Your task to perform on an android device: Clear the cart on bestbuy. Add bose soundlink to the cart on bestbuy, then select checkout. Image 0: 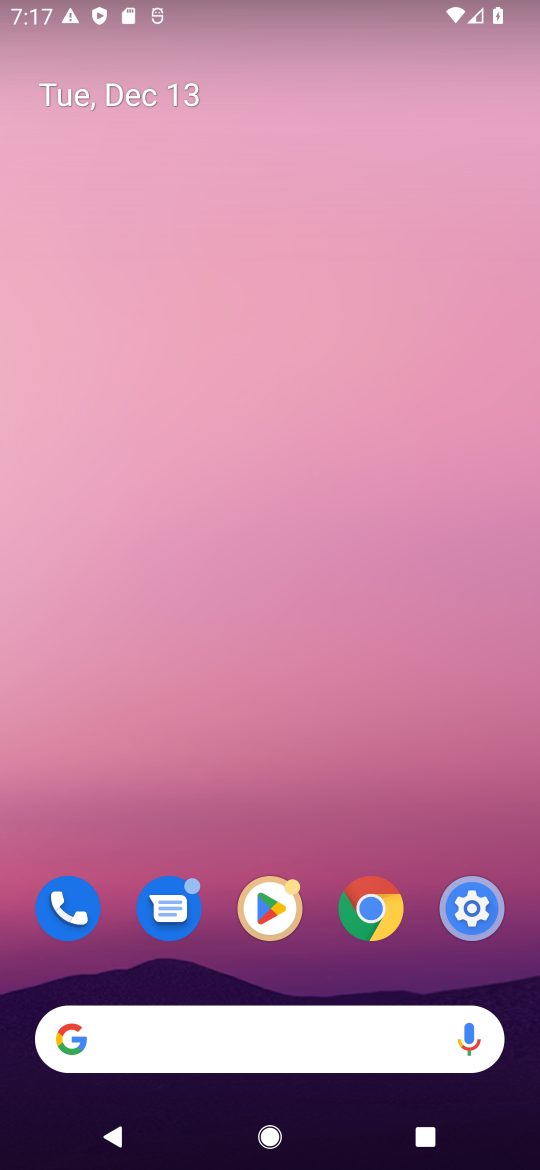
Step 0: press home button
Your task to perform on an android device: Clear the cart on bestbuy. Add bose soundlink to the cart on bestbuy, then select checkout. Image 1: 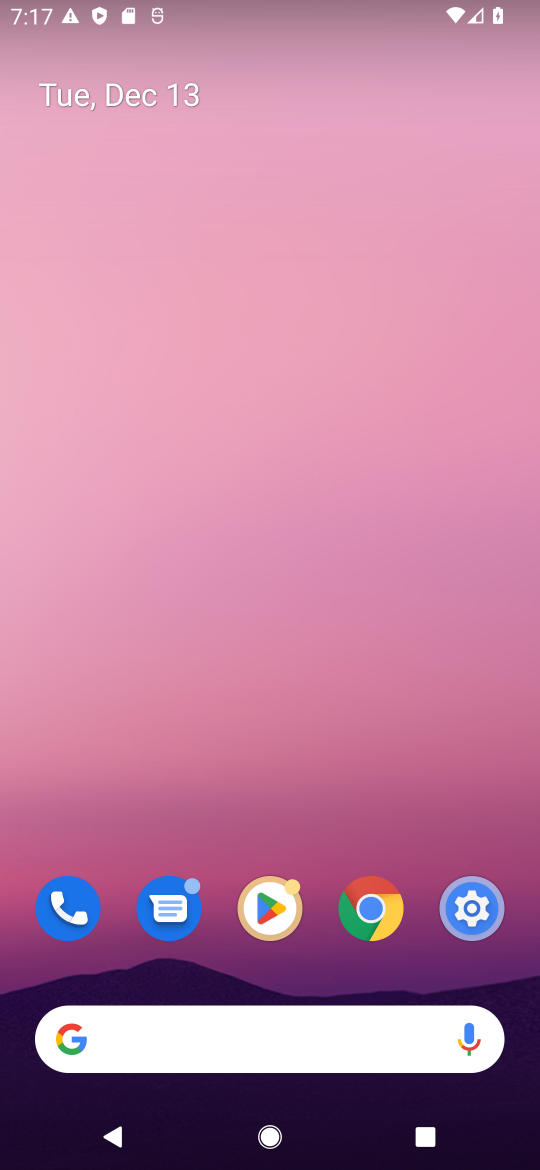
Step 1: click (144, 1029)
Your task to perform on an android device: Clear the cart on bestbuy. Add bose soundlink to the cart on bestbuy, then select checkout. Image 2: 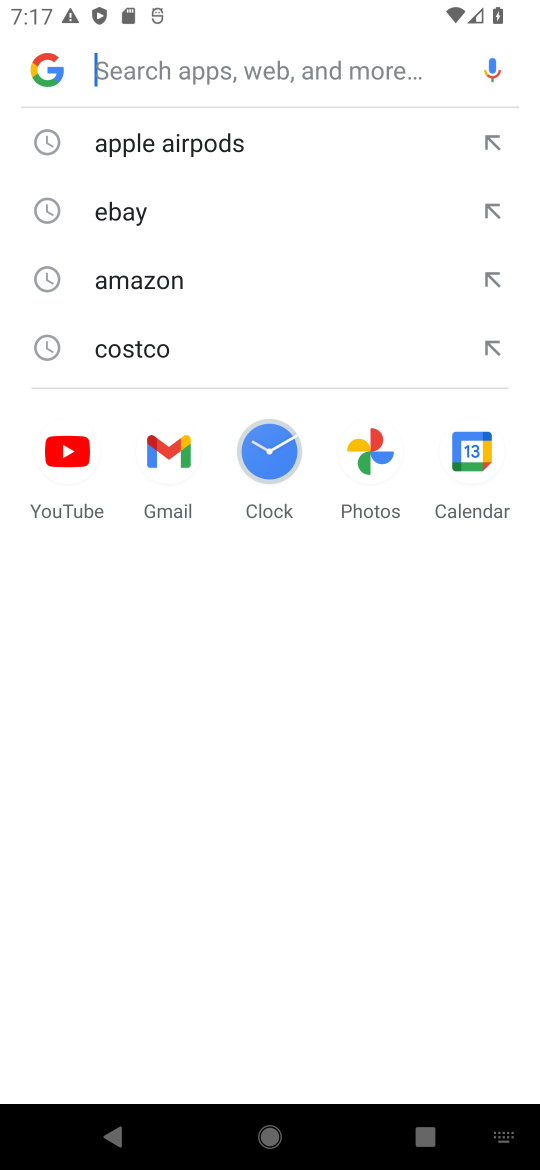
Step 2: type "bestbuy"
Your task to perform on an android device: Clear the cart on bestbuy. Add bose soundlink to the cart on bestbuy, then select checkout. Image 3: 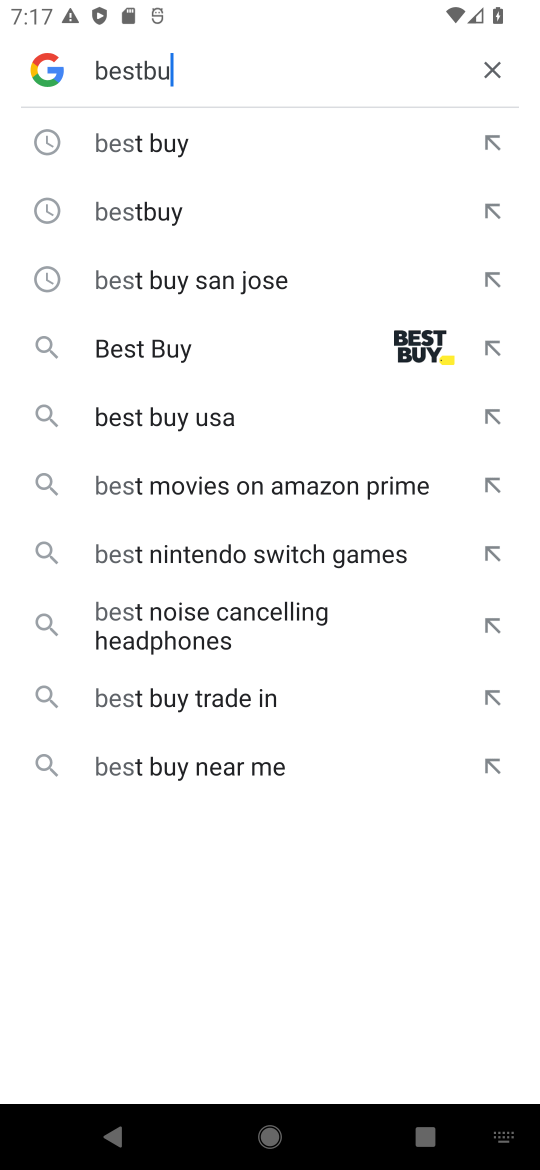
Step 3: press enter
Your task to perform on an android device: Clear the cart on bestbuy. Add bose soundlink to the cart on bestbuy, then select checkout. Image 4: 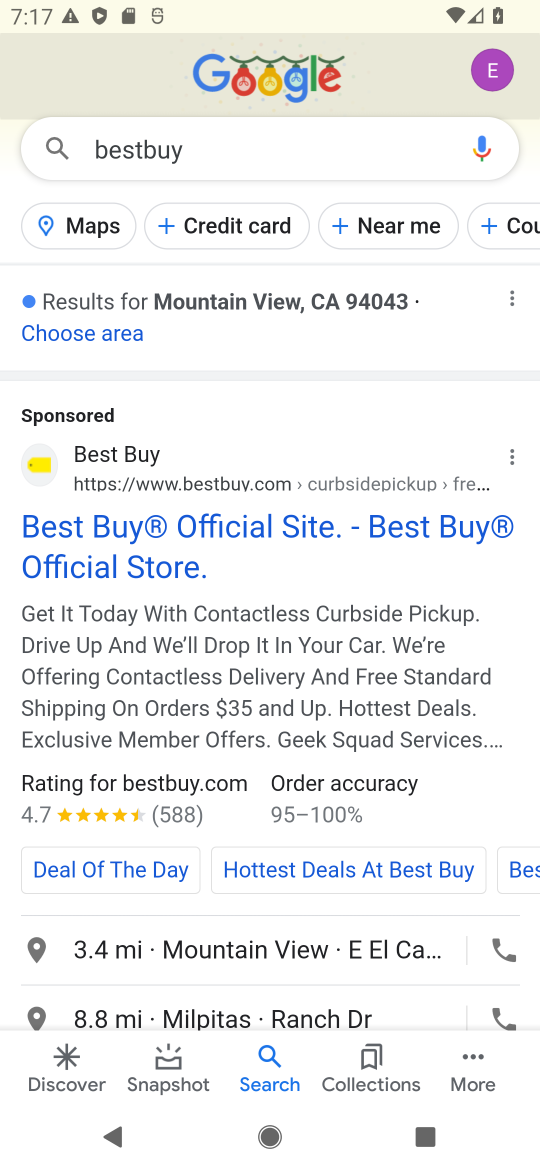
Step 4: click (164, 561)
Your task to perform on an android device: Clear the cart on bestbuy. Add bose soundlink to the cart on bestbuy, then select checkout. Image 5: 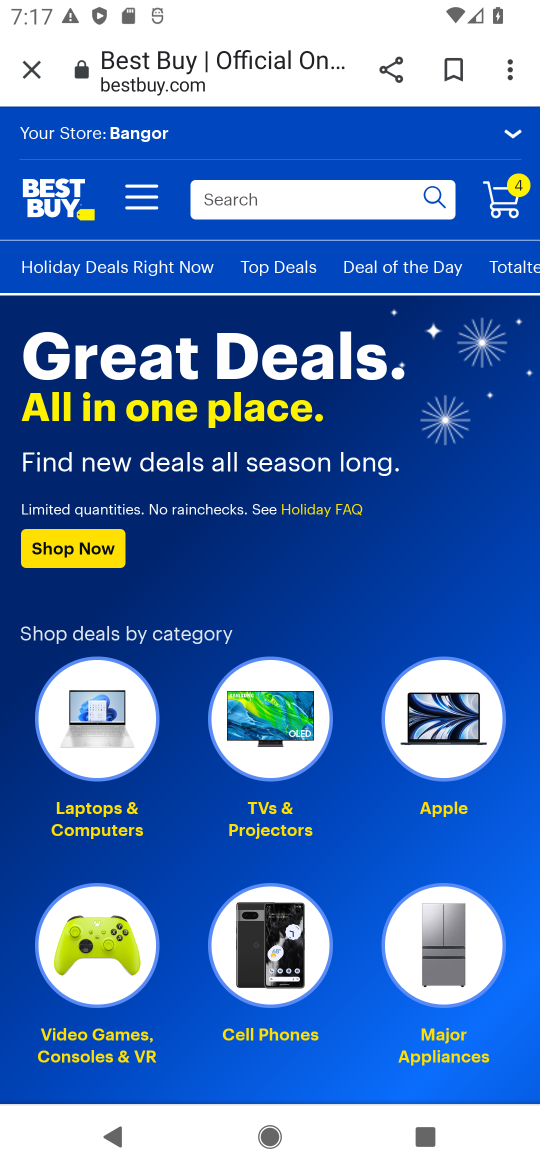
Step 5: click (518, 198)
Your task to perform on an android device: Clear the cart on bestbuy. Add bose soundlink to the cart on bestbuy, then select checkout. Image 6: 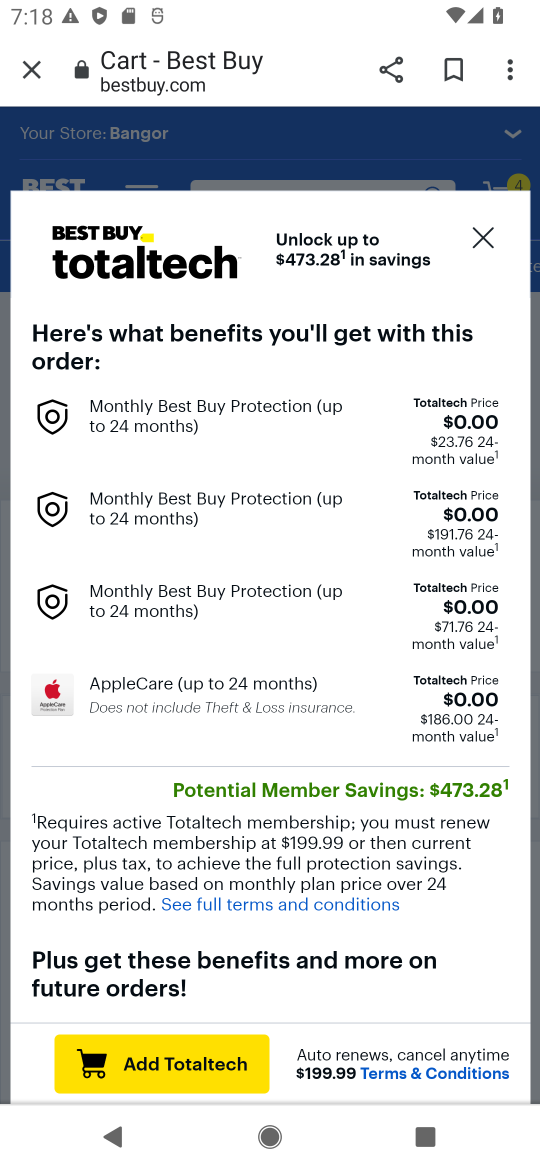
Step 6: click (483, 244)
Your task to perform on an android device: Clear the cart on bestbuy. Add bose soundlink to the cart on bestbuy, then select checkout. Image 7: 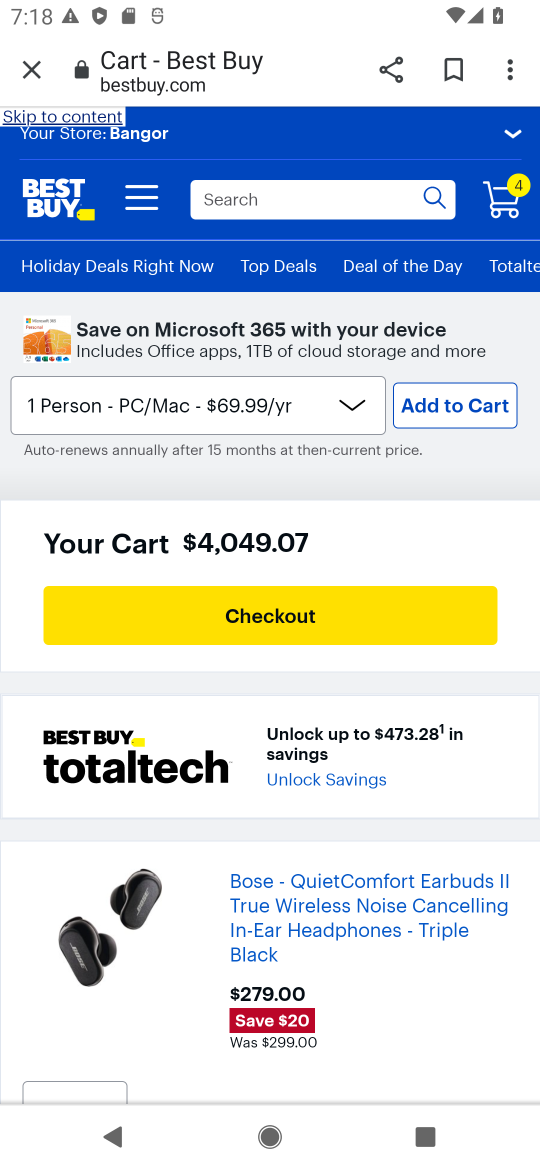
Step 7: drag from (336, 910) to (339, 503)
Your task to perform on an android device: Clear the cart on bestbuy. Add bose soundlink to the cart on bestbuy, then select checkout. Image 8: 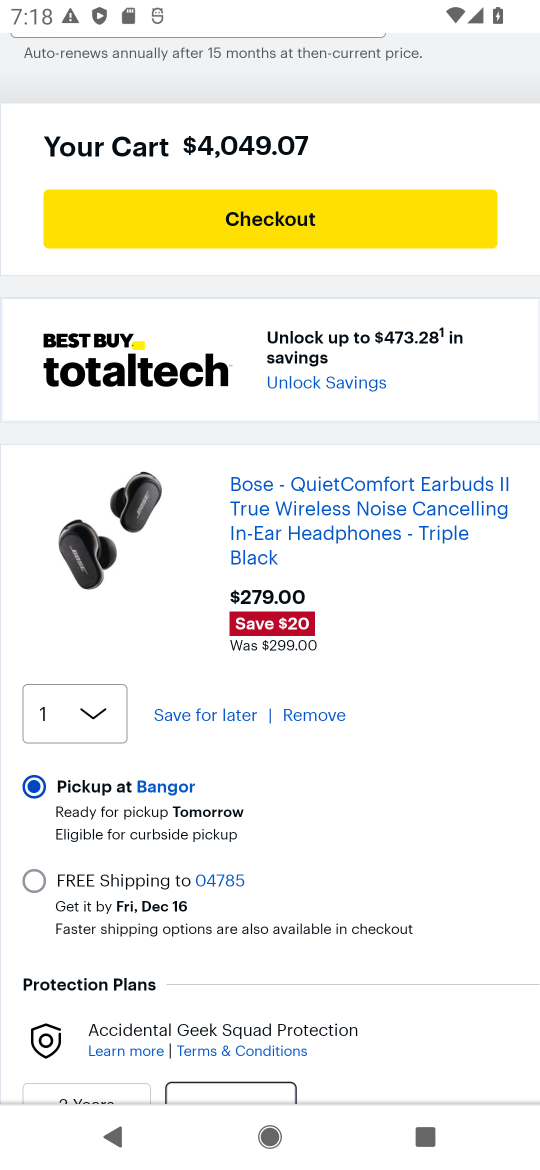
Step 8: click (300, 707)
Your task to perform on an android device: Clear the cart on bestbuy. Add bose soundlink to the cart on bestbuy, then select checkout. Image 9: 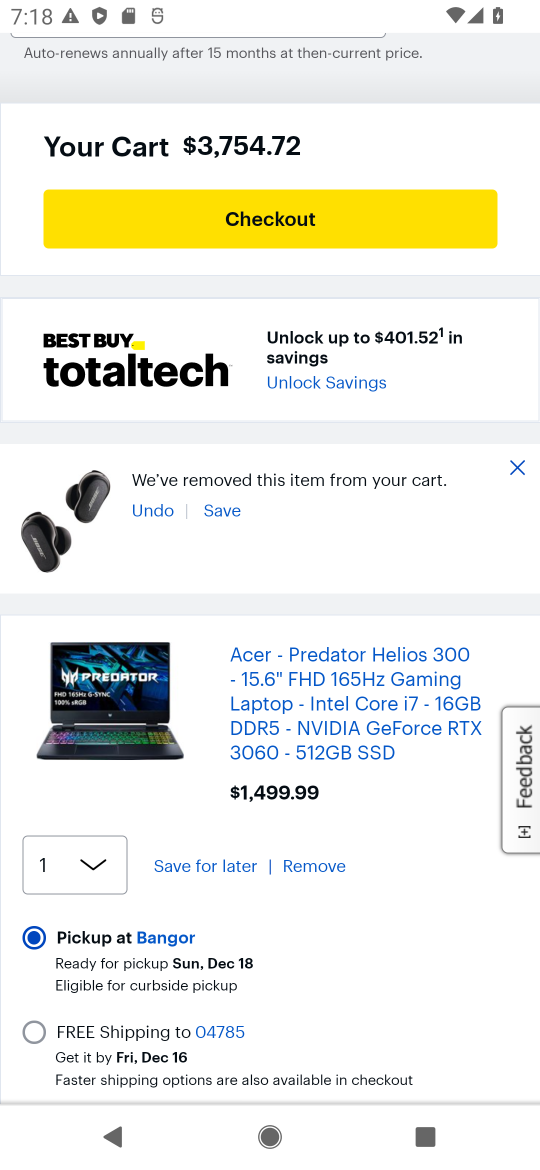
Step 9: click (326, 872)
Your task to perform on an android device: Clear the cart on bestbuy. Add bose soundlink to the cart on bestbuy, then select checkout. Image 10: 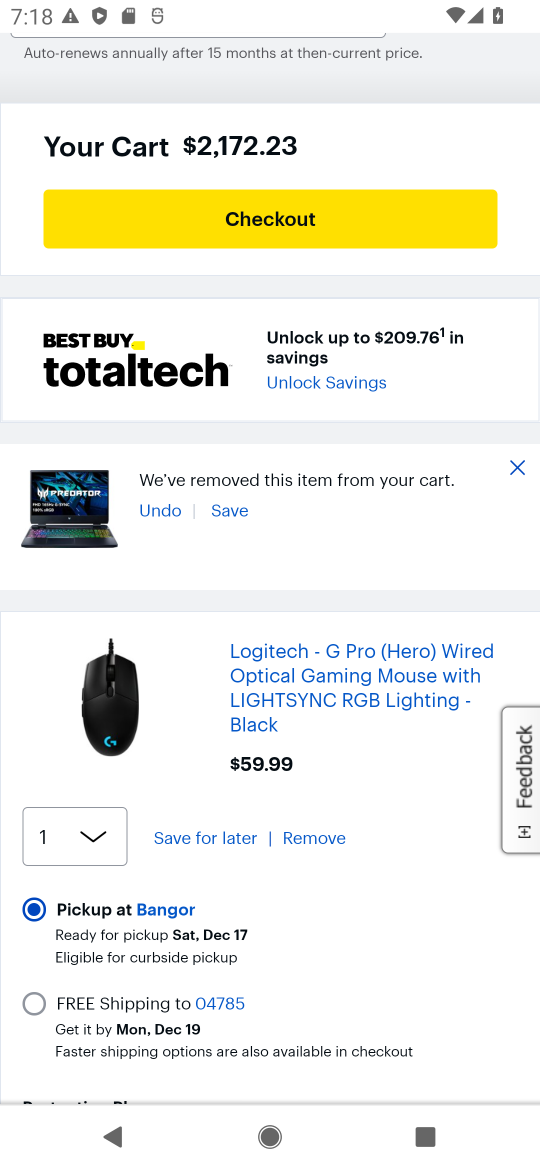
Step 10: click (313, 833)
Your task to perform on an android device: Clear the cart on bestbuy. Add bose soundlink to the cart on bestbuy, then select checkout. Image 11: 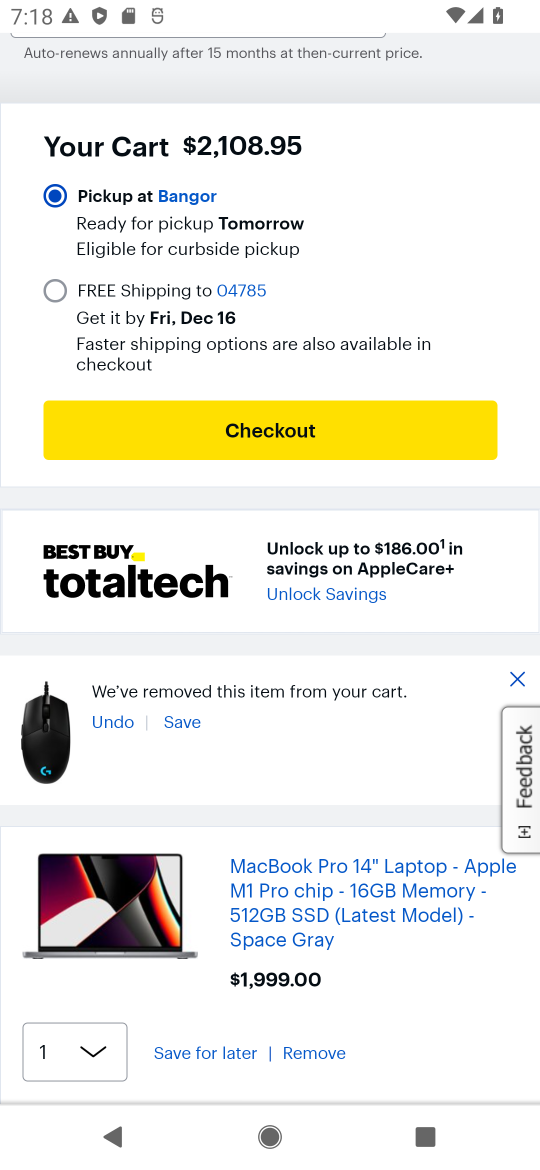
Step 11: click (308, 1044)
Your task to perform on an android device: Clear the cart on bestbuy. Add bose soundlink to the cart on bestbuy, then select checkout. Image 12: 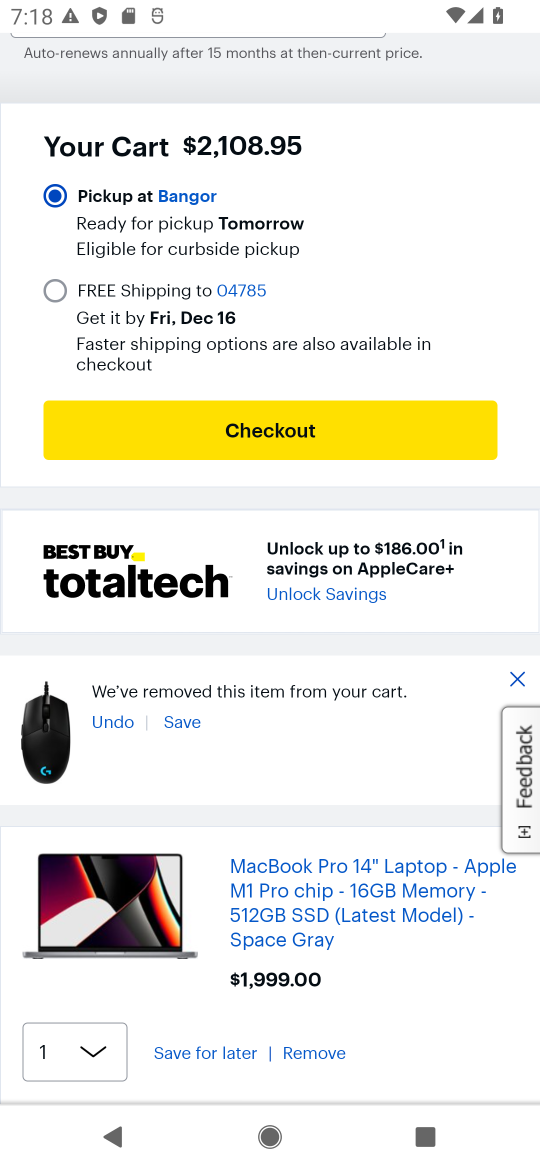
Step 12: drag from (361, 952) to (394, 513)
Your task to perform on an android device: Clear the cart on bestbuy. Add bose soundlink to the cart on bestbuy, then select checkout. Image 13: 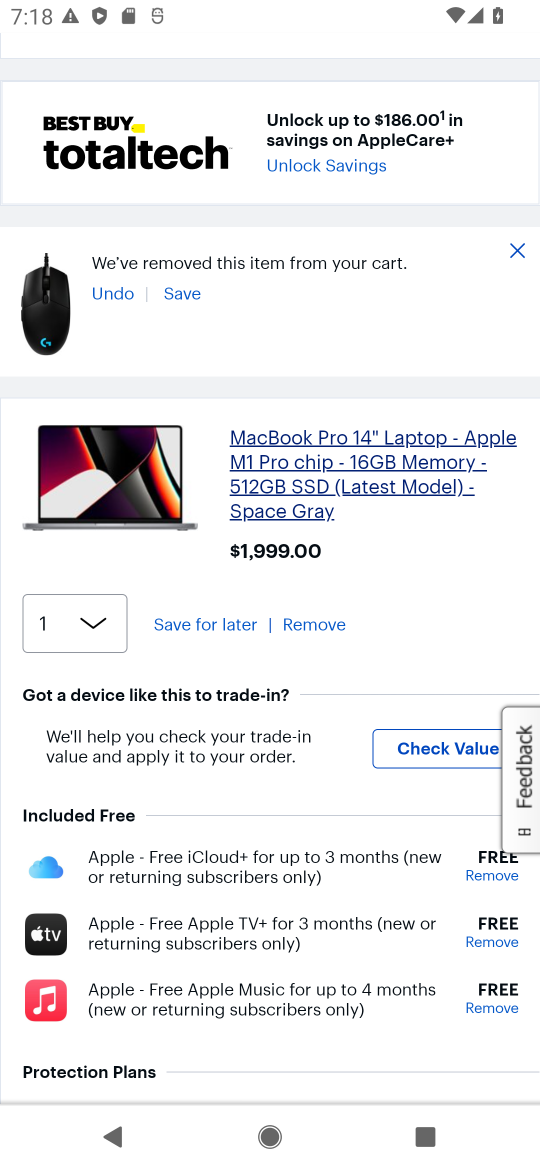
Step 13: click (323, 627)
Your task to perform on an android device: Clear the cart on bestbuy. Add bose soundlink to the cart on bestbuy, then select checkout. Image 14: 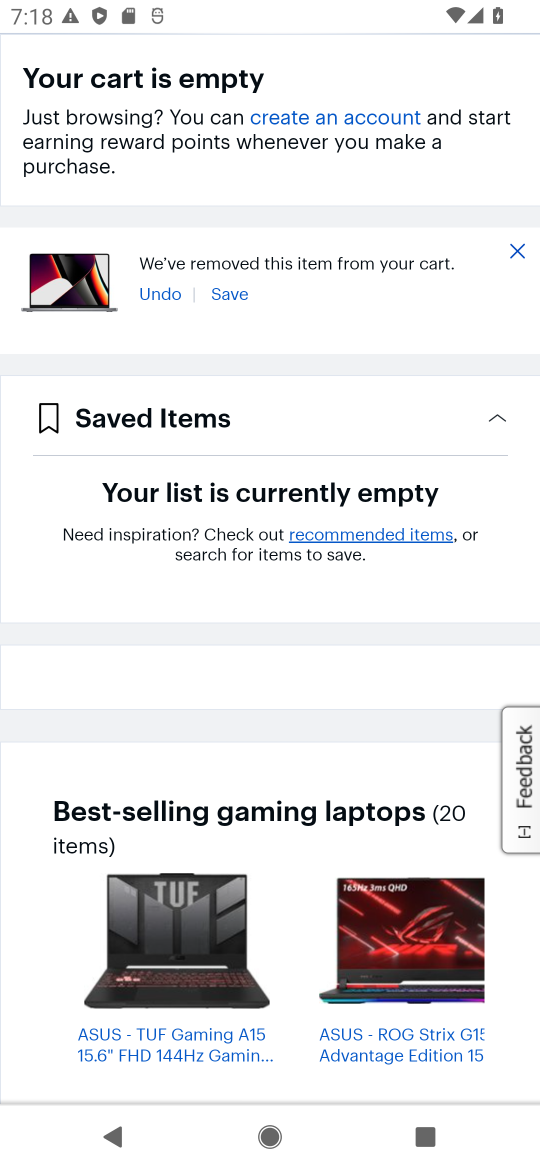
Step 14: press back button
Your task to perform on an android device: Clear the cart on bestbuy. Add bose soundlink to the cart on bestbuy, then select checkout. Image 15: 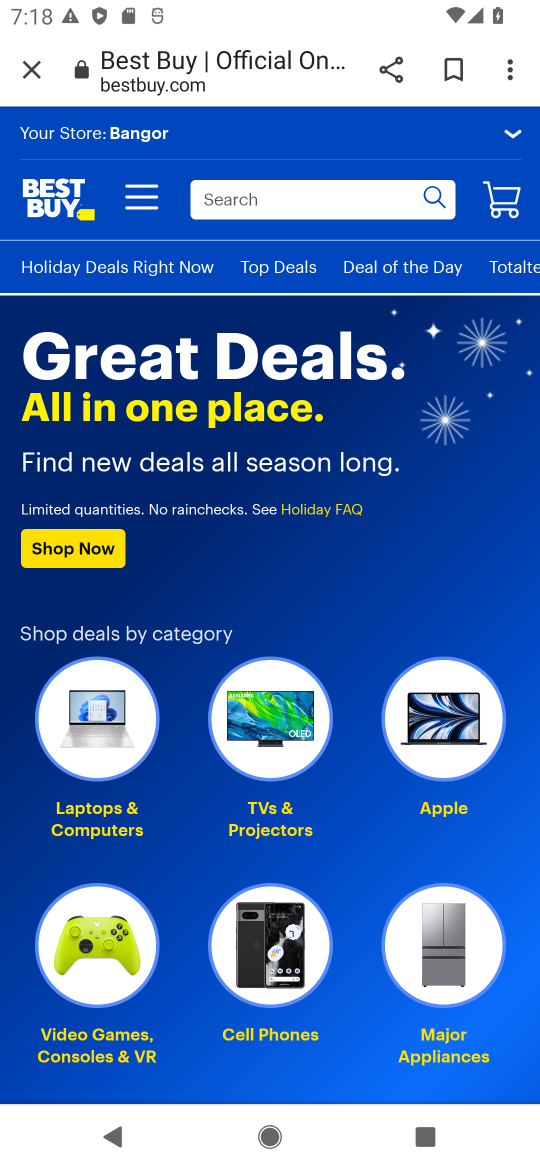
Step 15: click (235, 197)
Your task to perform on an android device: Clear the cart on bestbuy. Add bose soundlink to the cart on bestbuy, then select checkout. Image 16: 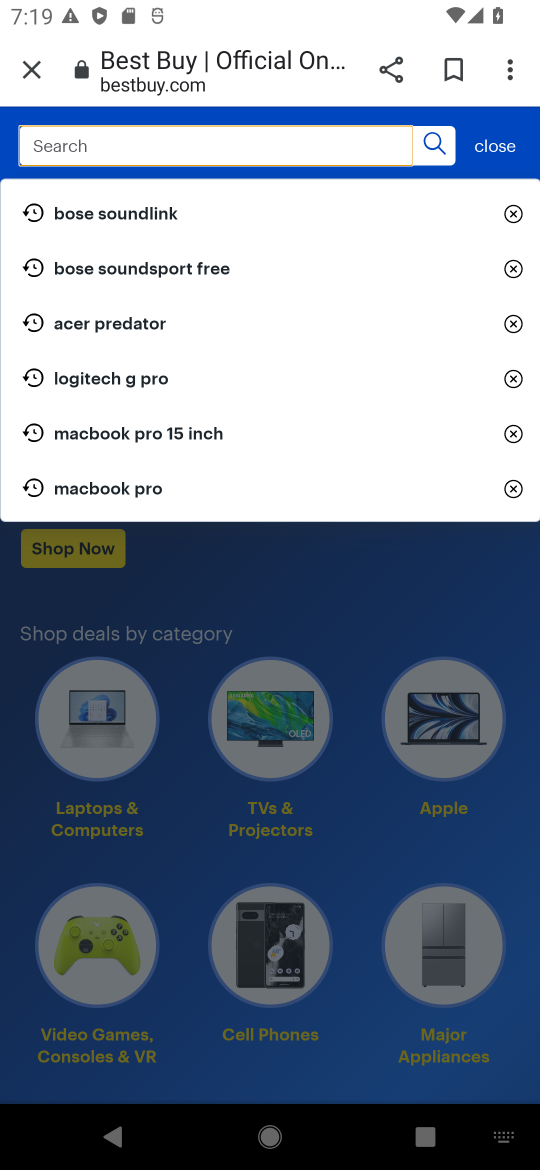
Step 16: type "bose soundlink"
Your task to perform on an android device: Clear the cart on bestbuy. Add bose soundlink to the cart on bestbuy, then select checkout. Image 17: 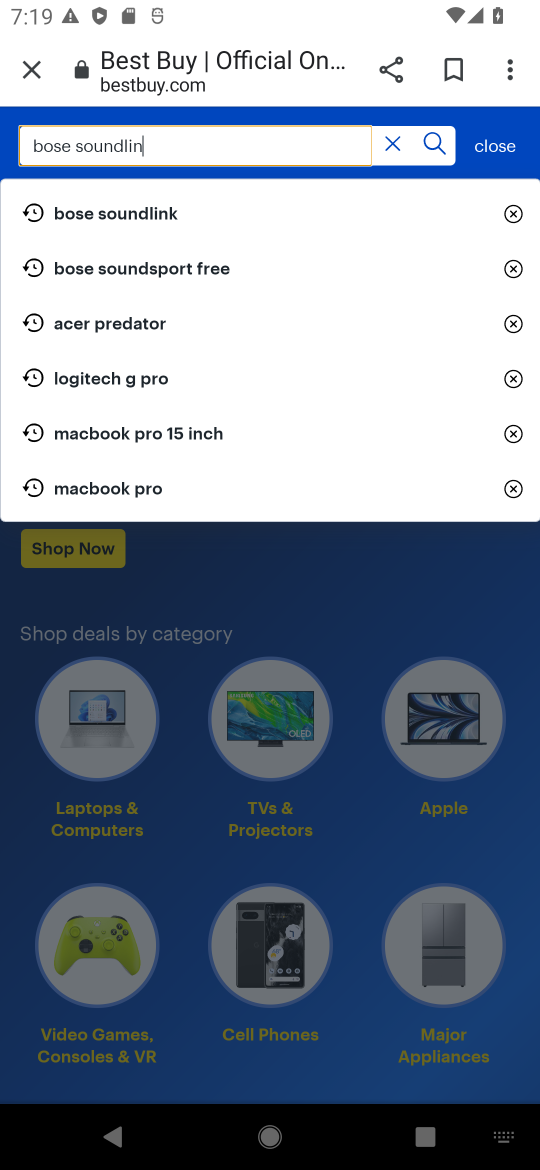
Step 17: press enter
Your task to perform on an android device: Clear the cart on bestbuy. Add bose soundlink to the cart on bestbuy, then select checkout. Image 18: 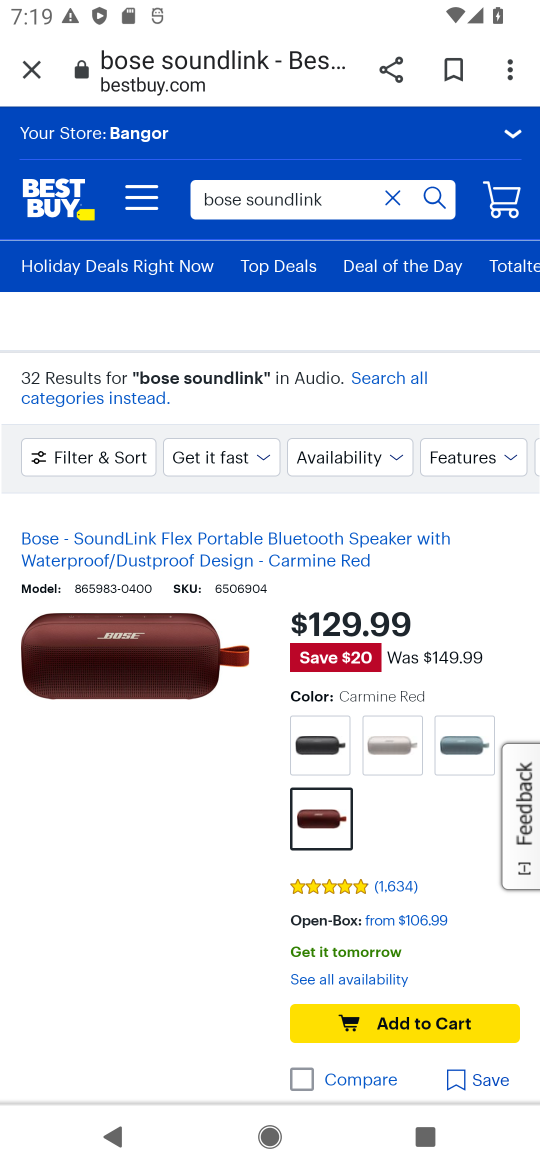
Step 18: click (397, 1020)
Your task to perform on an android device: Clear the cart on bestbuy. Add bose soundlink to the cart on bestbuy, then select checkout. Image 19: 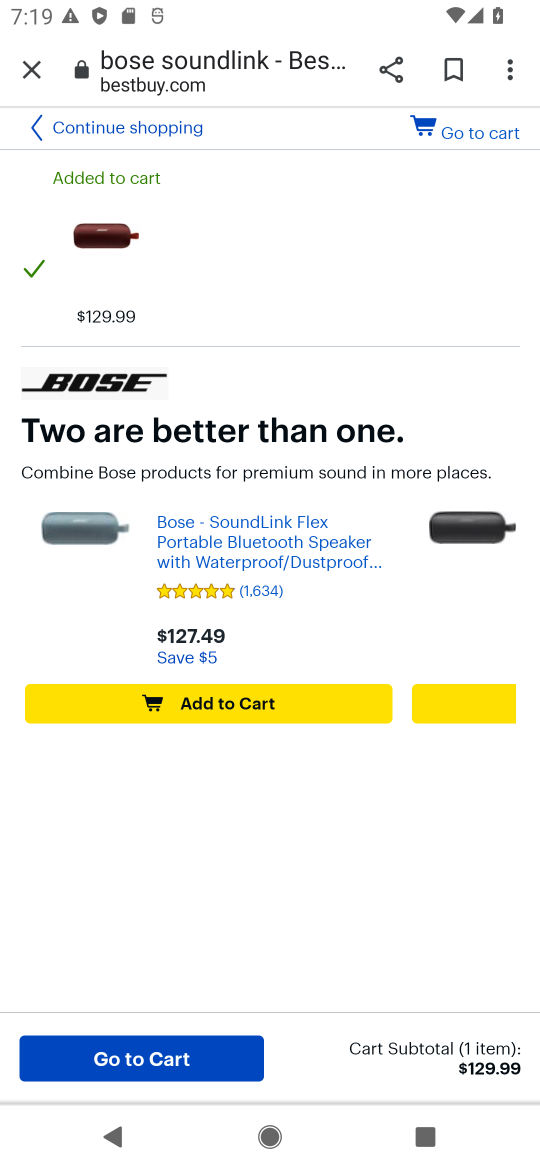
Step 19: click (135, 1064)
Your task to perform on an android device: Clear the cart on bestbuy. Add bose soundlink to the cart on bestbuy, then select checkout. Image 20: 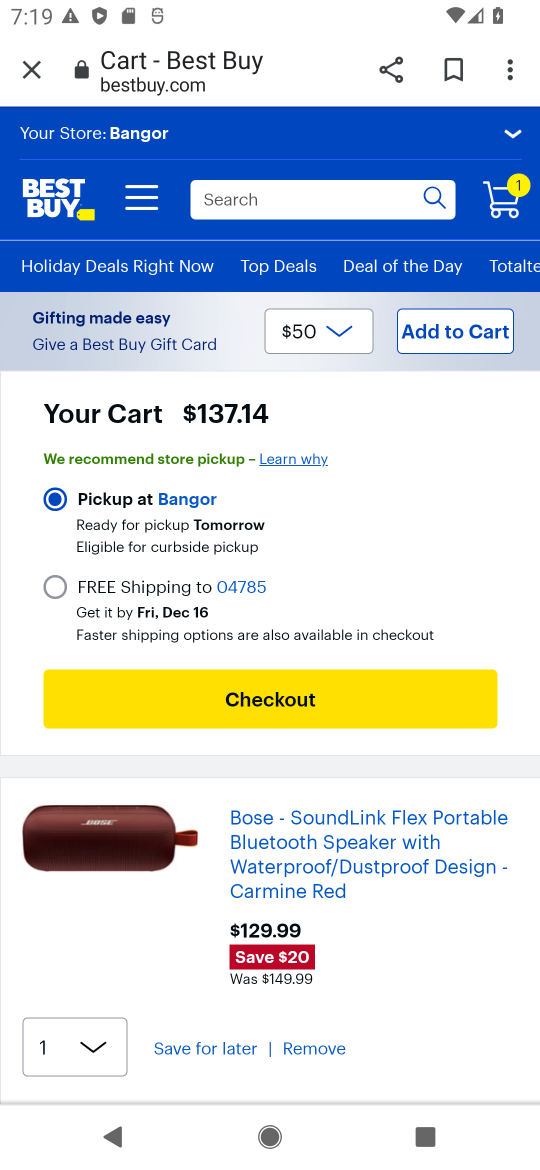
Step 20: click (267, 704)
Your task to perform on an android device: Clear the cart on bestbuy. Add bose soundlink to the cart on bestbuy, then select checkout. Image 21: 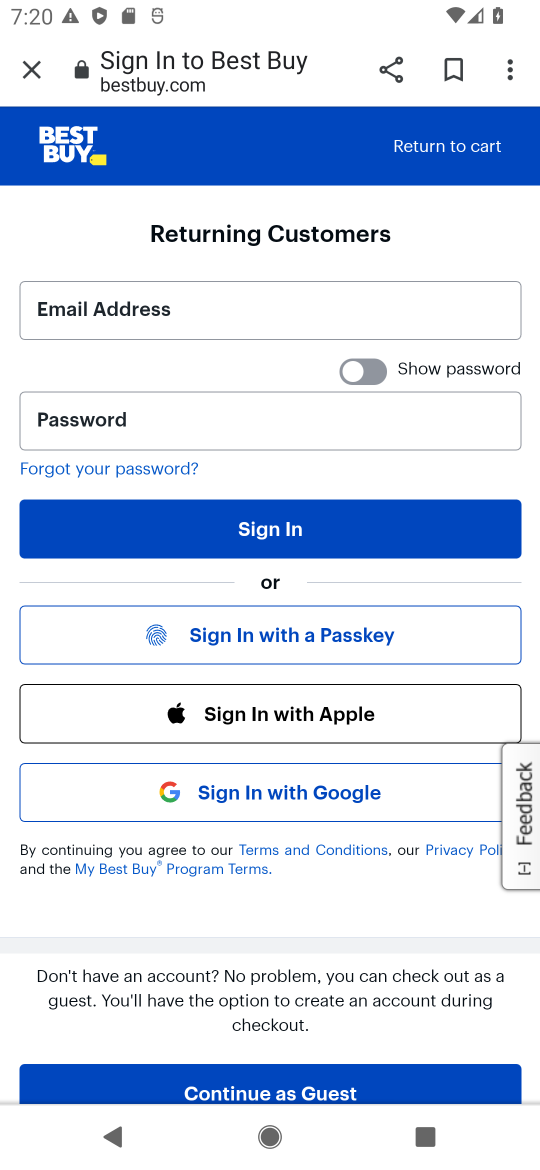
Step 21: task complete